Your task to perform on an android device: turn on notifications settings in the gmail app Image 0: 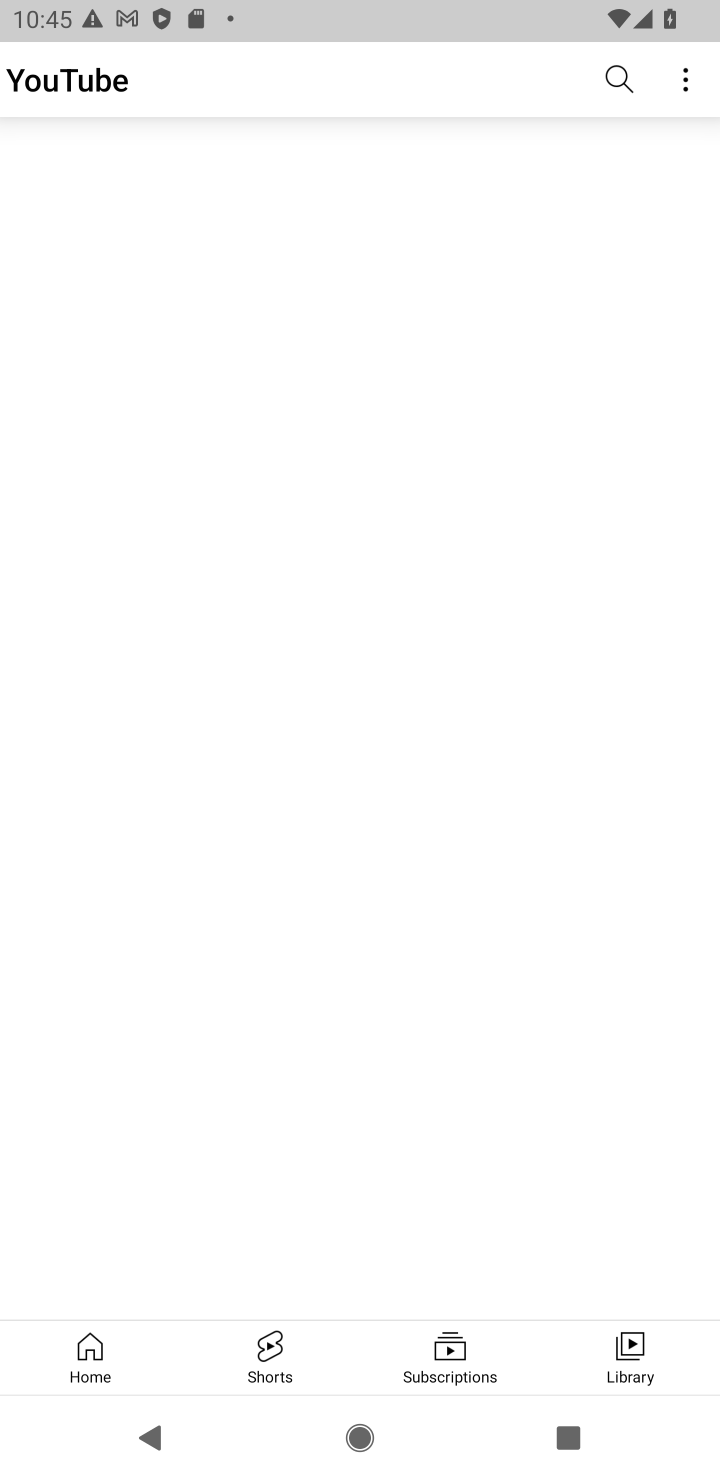
Step 0: press home button
Your task to perform on an android device: turn on notifications settings in the gmail app Image 1: 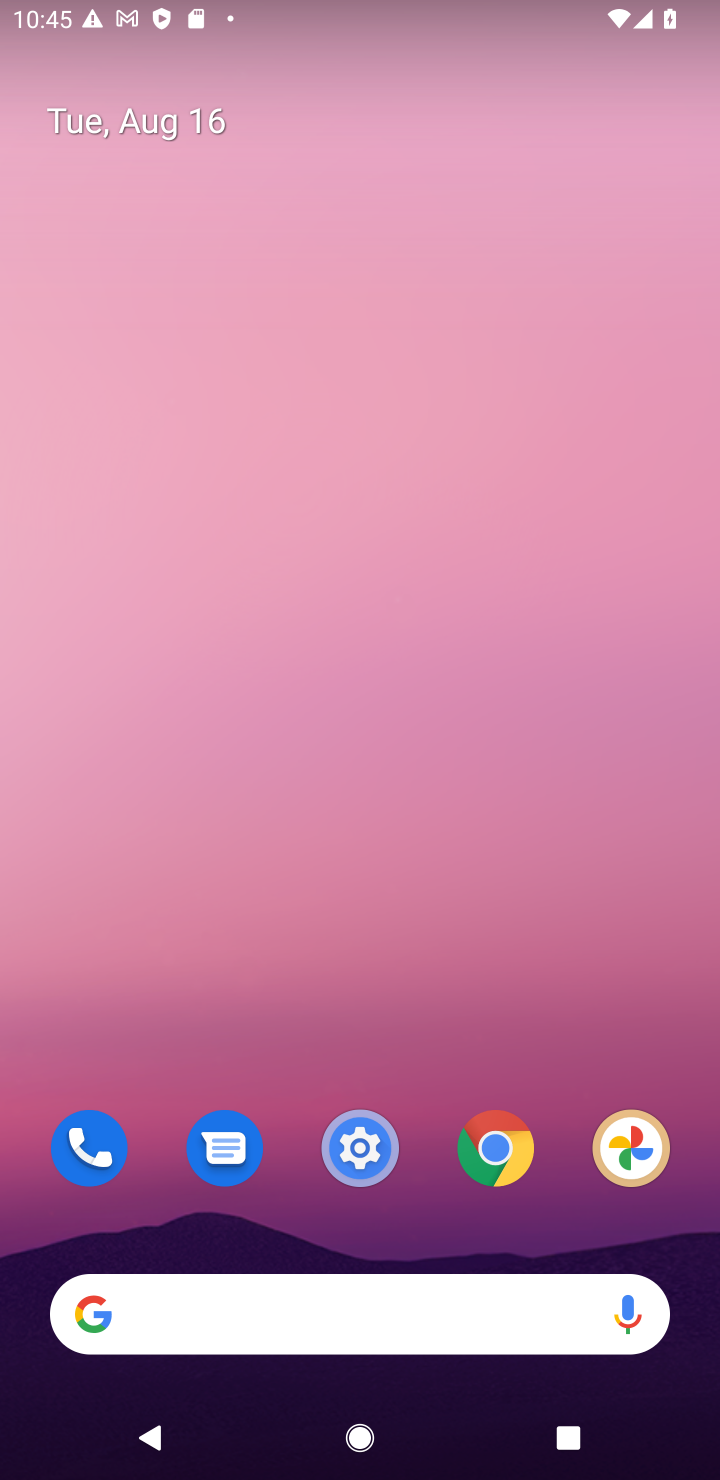
Step 1: drag from (370, 1108) to (528, 261)
Your task to perform on an android device: turn on notifications settings in the gmail app Image 2: 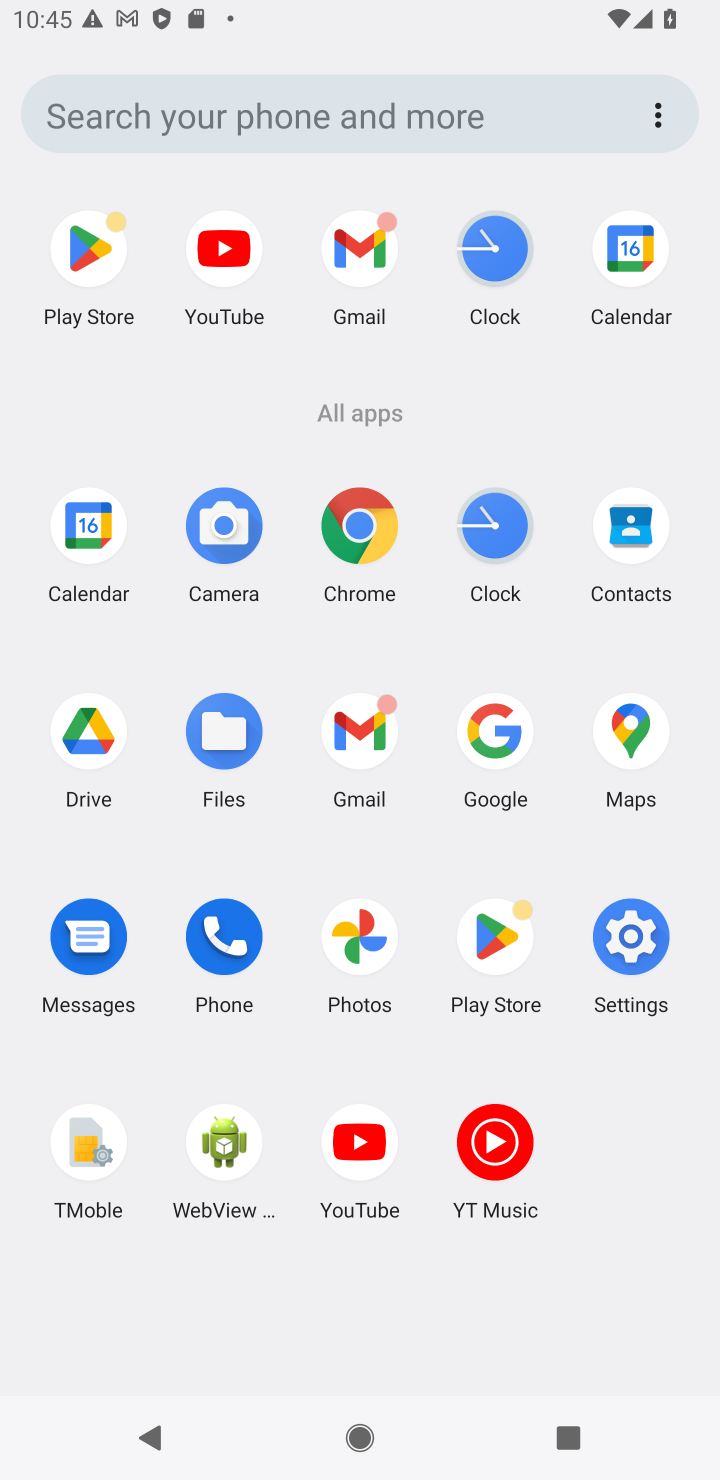
Step 2: click (369, 762)
Your task to perform on an android device: turn on notifications settings in the gmail app Image 3: 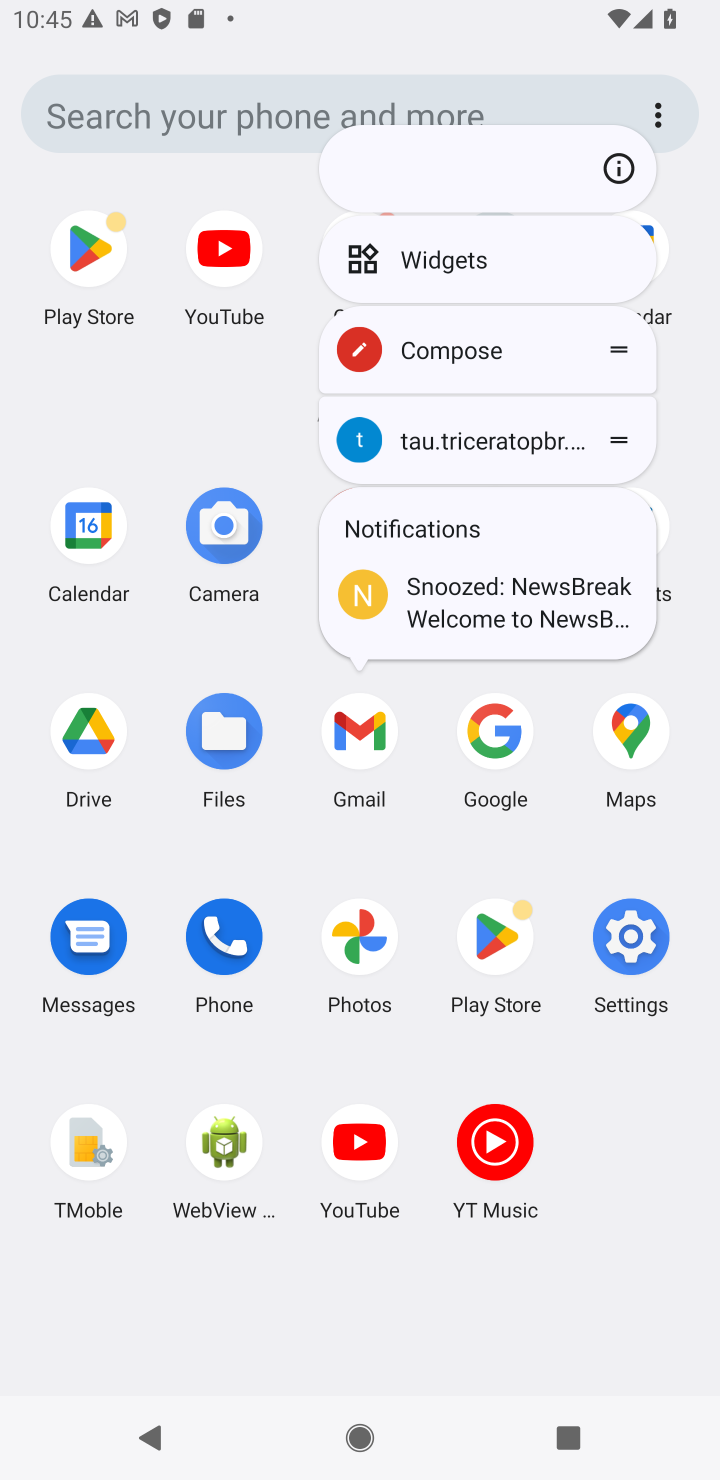
Step 3: click (618, 179)
Your task to perform on an android device: turn on notifications settings in the gmail app Image 4: 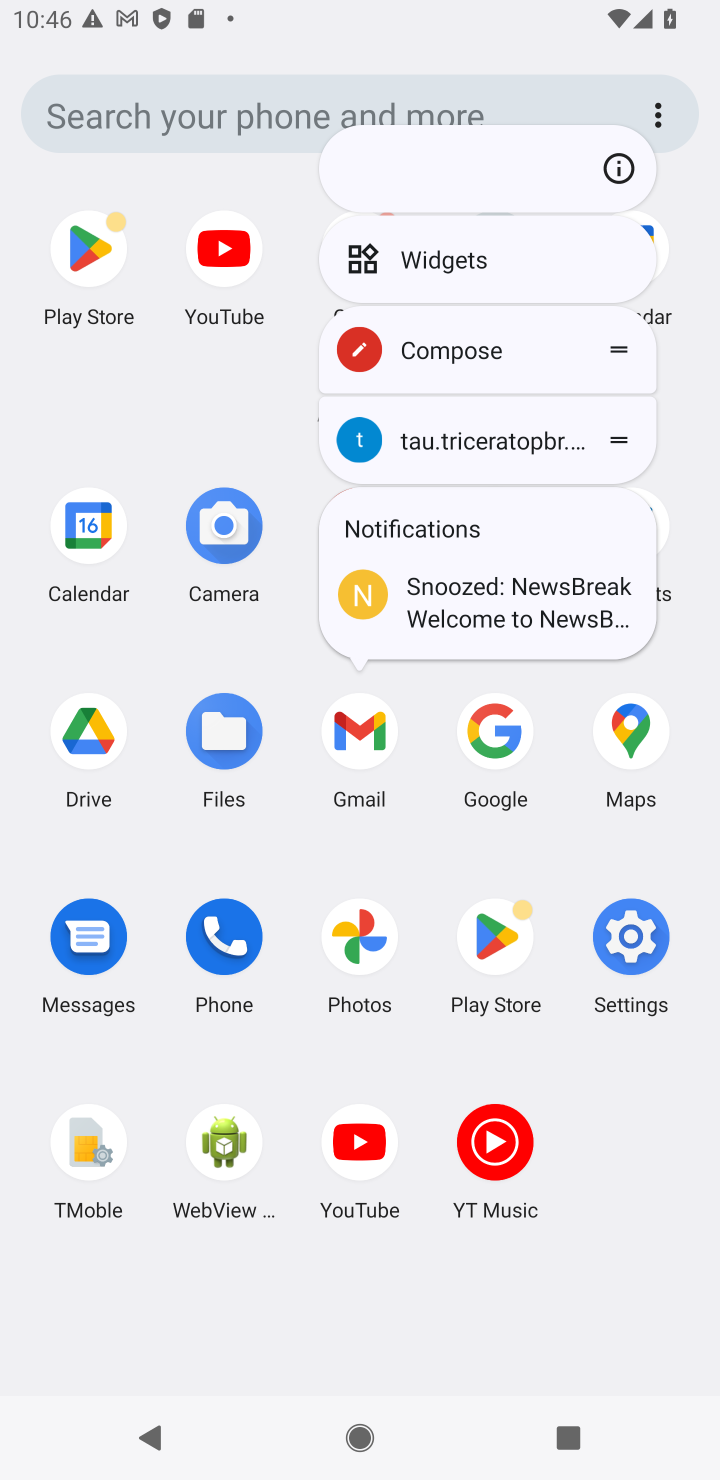
Step 4: click (623, 171)
Your task to perform on an android device: turn on notifications settings in the gmail app Image 5: 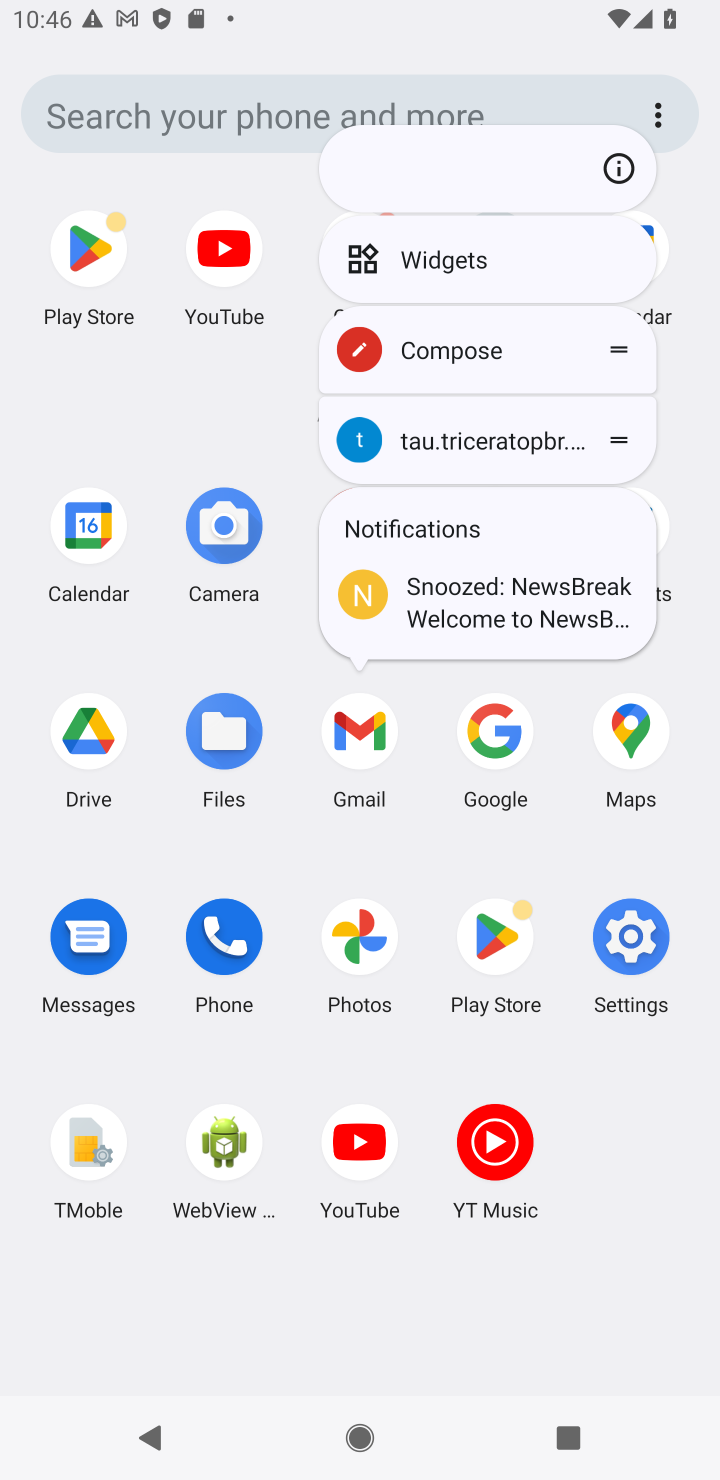
Step 5: click (623, 171)
Your task to perform on an android device: turn on notifications settings in the gmail app Image 6: 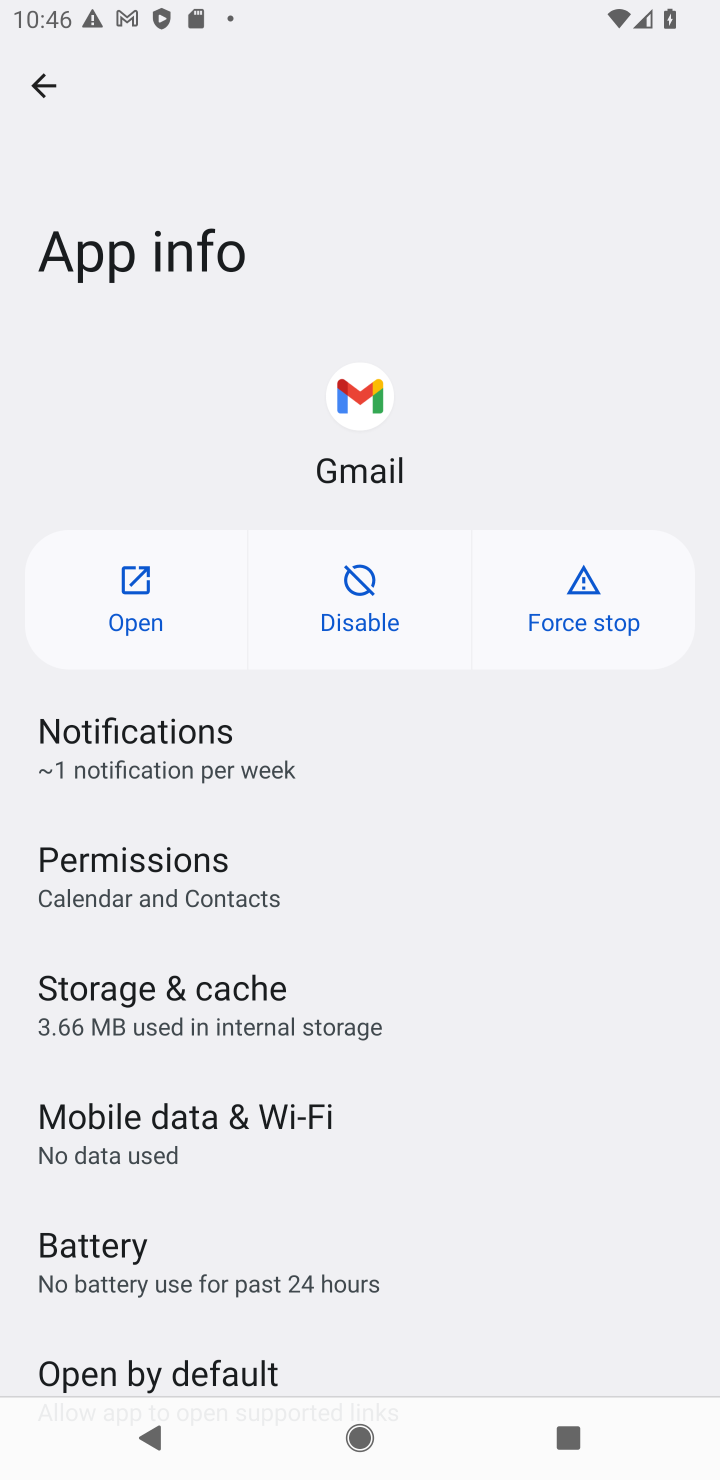
Step 6: click (177, 737)
Your task to perform on an android device: turn on notifications settings in the gmail app Image 7: 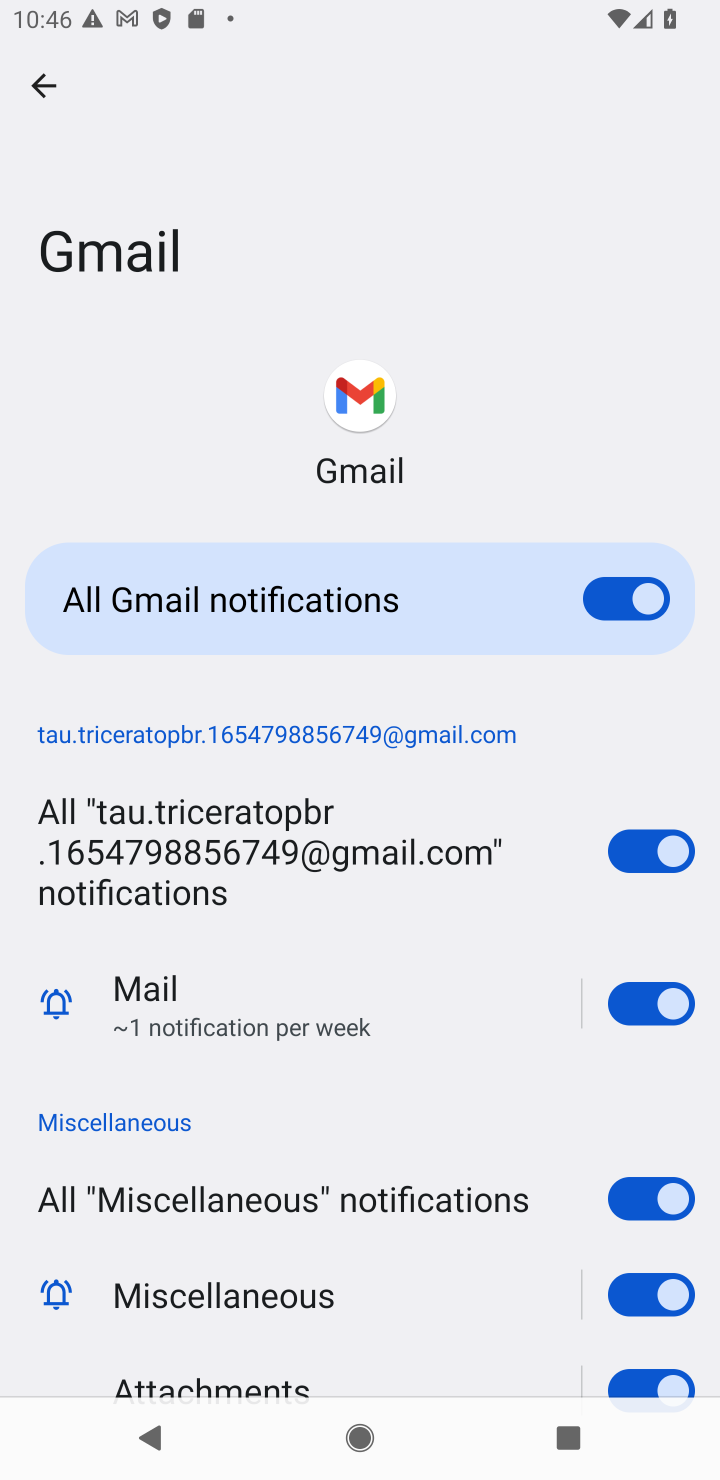
Step 7: task complete